Your task to perform on an android device: change your default location settings in chrome Image 0: 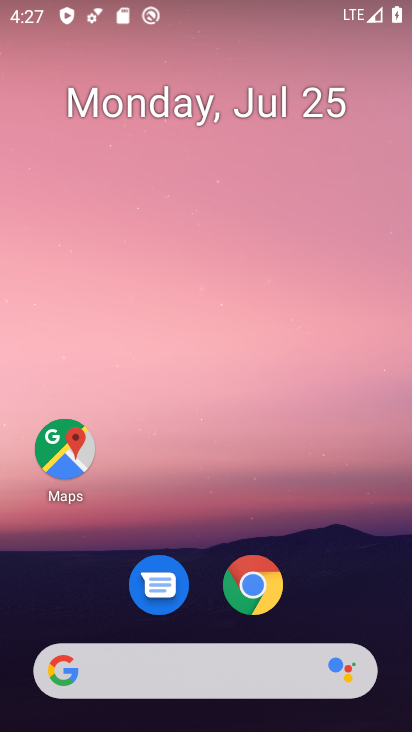
Step 0: click (259, 579)
Your task to perform on an android device: change your default location settings in chrome Image 1: 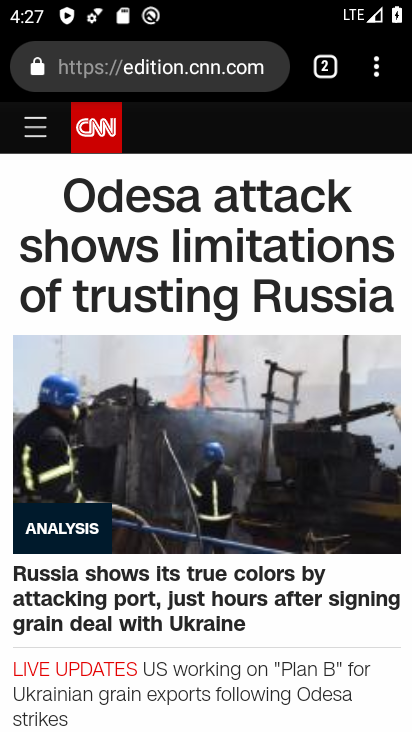
Step 1: click (371, 73)
Your task to perform on an android device: change your default location settings in chrome Image 2: 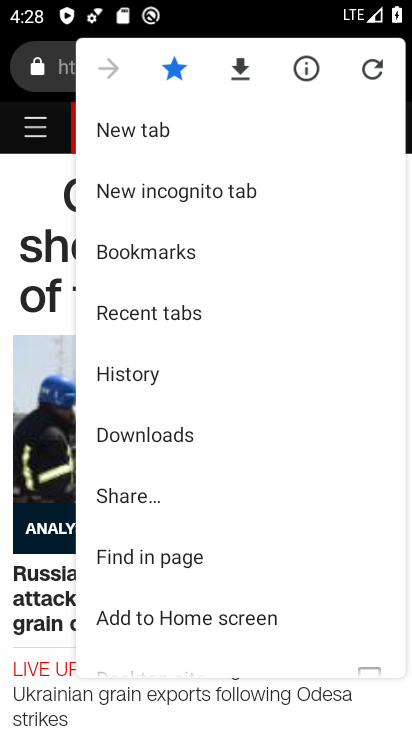
Step 2: drag from (219, 586) to (295, 166)
Your task to perform on an android device: change your default location settings in chrome Image 3: 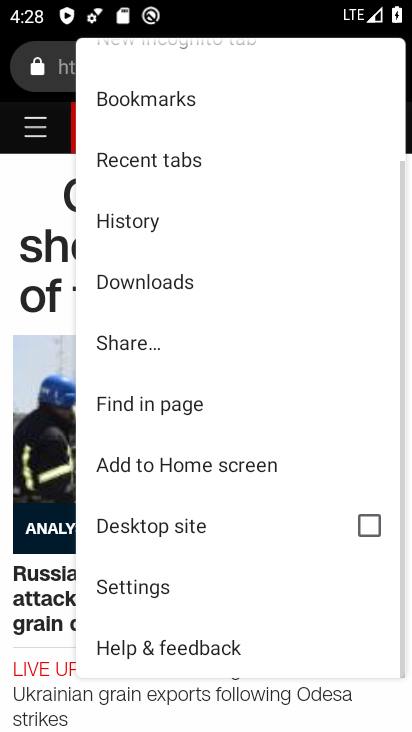
Step 3: click (155, 587)
Your task to perform on an android device: change your default location settings in chrome Image 4: 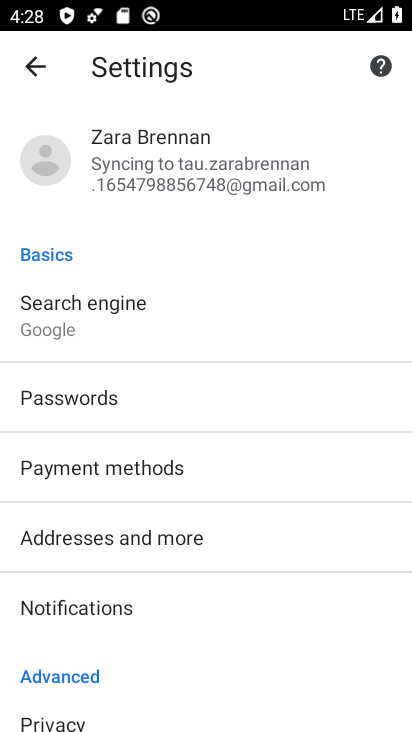
Step 4: drag from (229, 482) to (220, 119)
Your task to perform on an android device: change your default location settings in chrome Image 5: 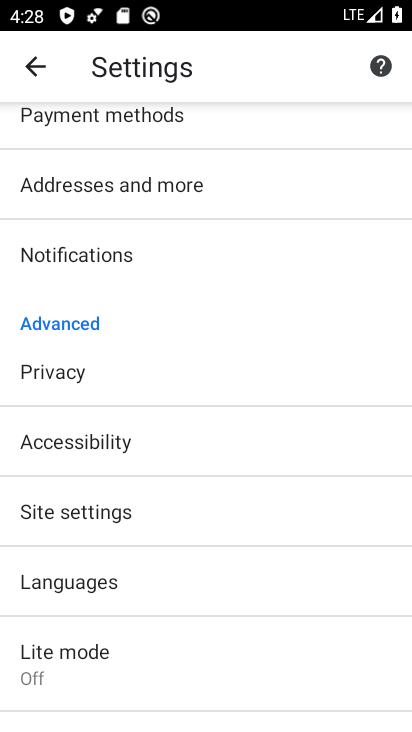
Step 5: click (100, 518)
Your task to perform on an android device: change your default location settings in chrome Image 6: 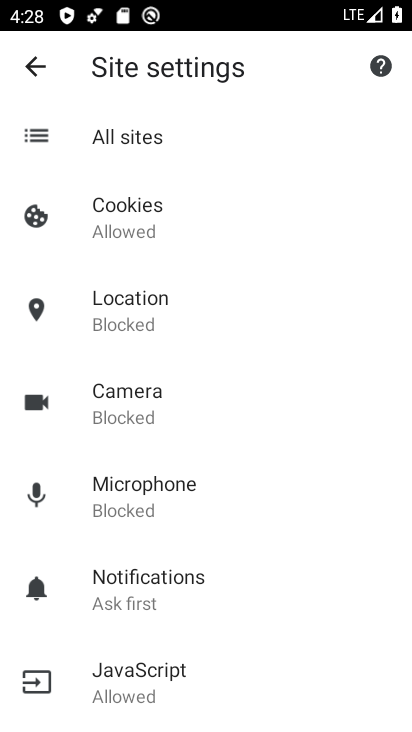
Step 6: click (113, 312)
Your task to perform on an android device: change your default location settings in chrome Image 7: 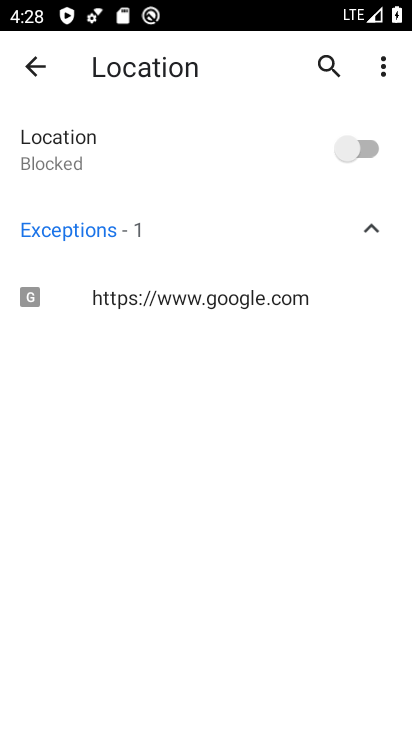
Step 7: click (349, 147)
Your task to perform on an android device: change your default location settings in chrome Image 8: 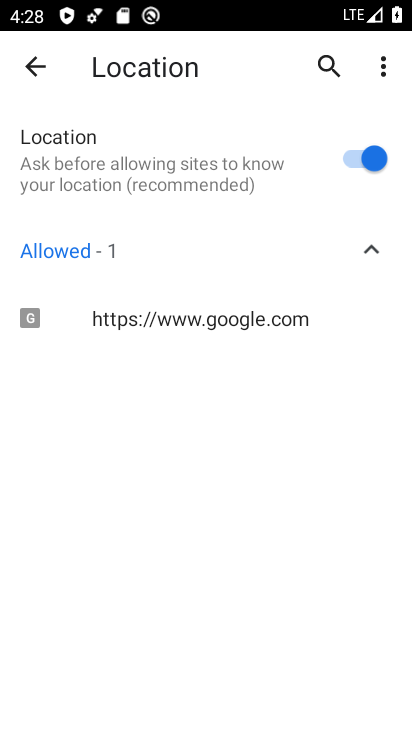
Step 8: task complete